Your task to perform on an android device: check android version Image 0: 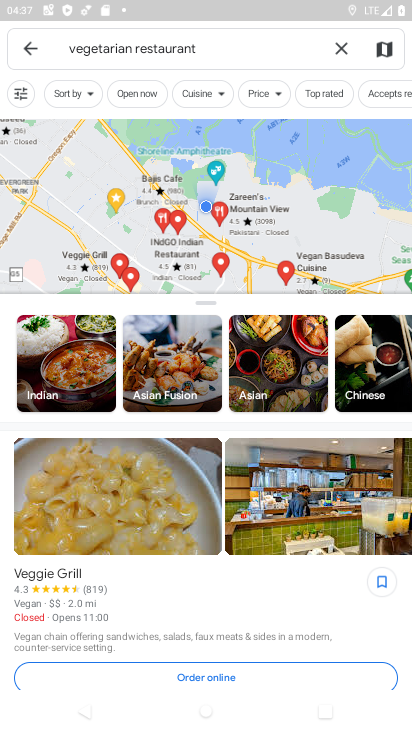
Step 0: press back button
Your task to perform on an android device: check android version Image 1: 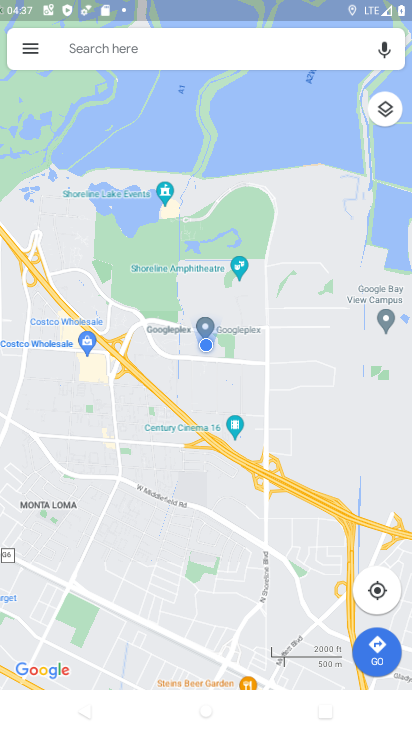
Step 1: press back button
Your task to perform on an android device: check android version Image 2: 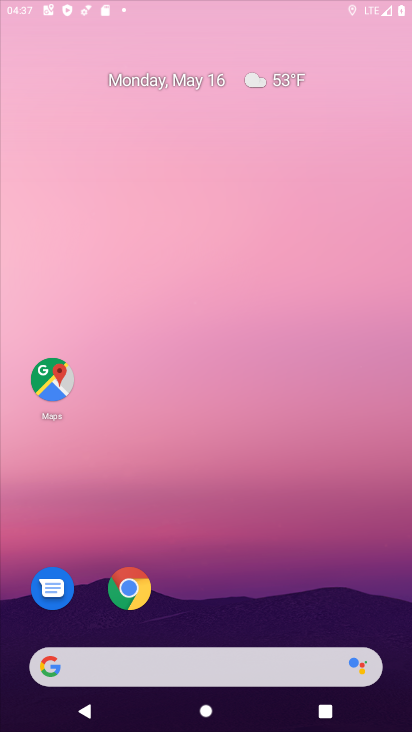
Step 2: press home button
Your task to perform on an android device: check android version Image 3: 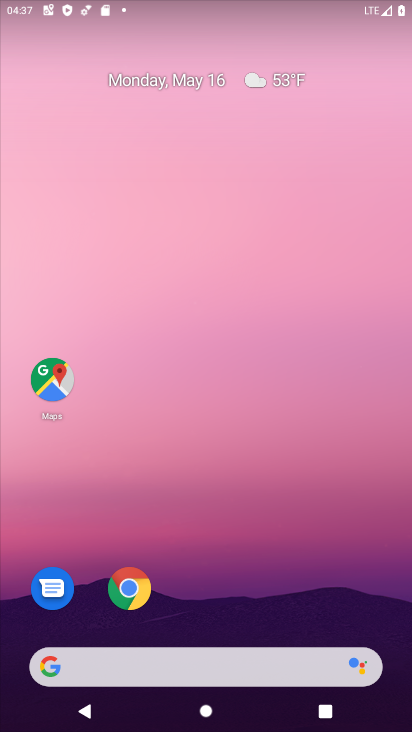
Step 3: drag from (235, 496) to (205, 0)
Your task to perform on an android device: check android version Image 4: 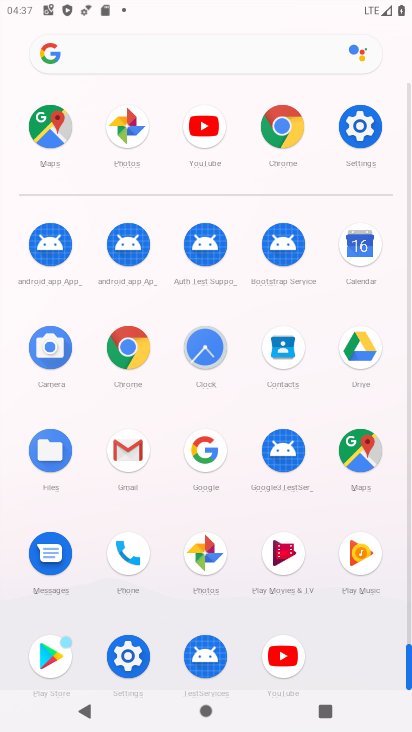
Step 4: click (125, 655)
Your task to perform on an android device: check android version Image 5: 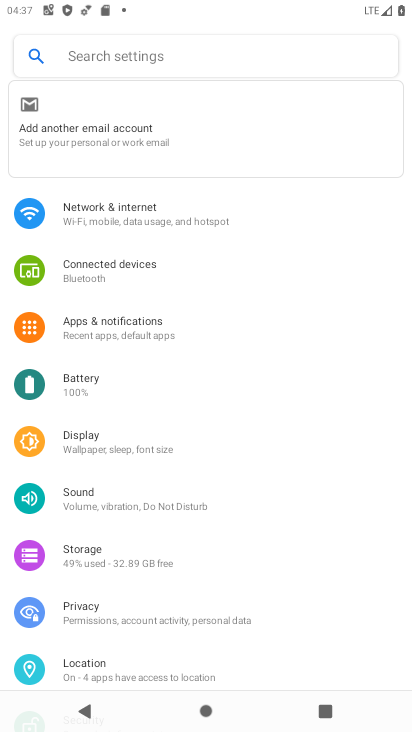
Step 5: drag from (246, 549) to (242, 110)
Your task to perform on an android device: check android version Image 6: 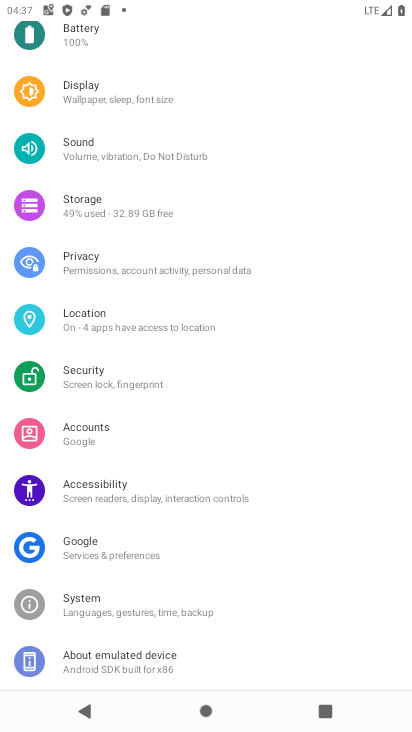
Step 6: drag from (242, 559) to (269, 117)
Your task to perform on an android device: check android version Image 7: 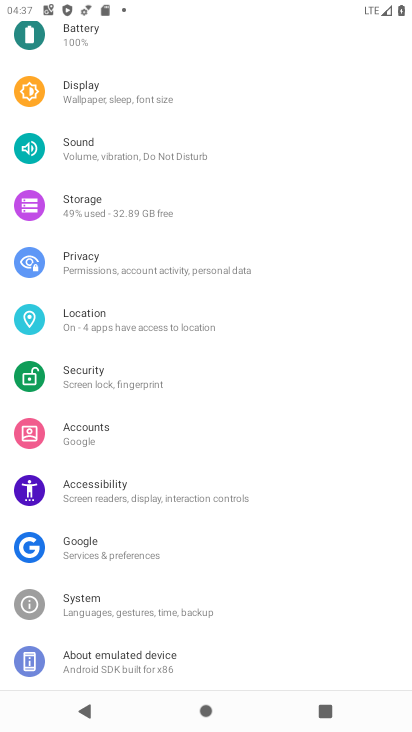
Step 7: click (162, 650)
Your task to perform on an android device: check android version Image 8: 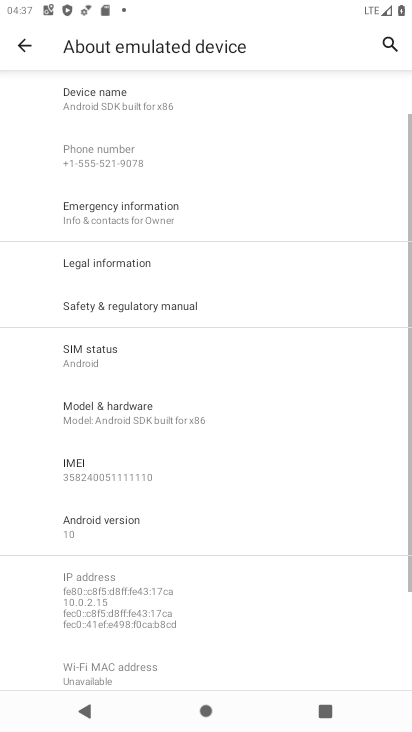
Step 8: task complete